Your task to perform on an android device: turn on bluetooth scan Image 0: 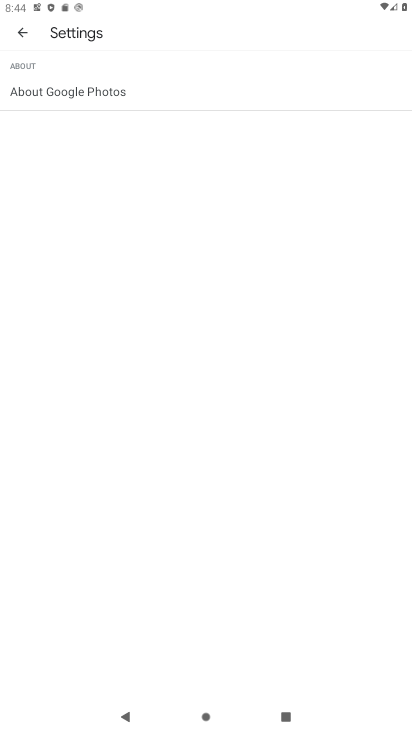
Step 0: press home button
Your task to perform on an android device: turn on bluetooth scan Image 1: 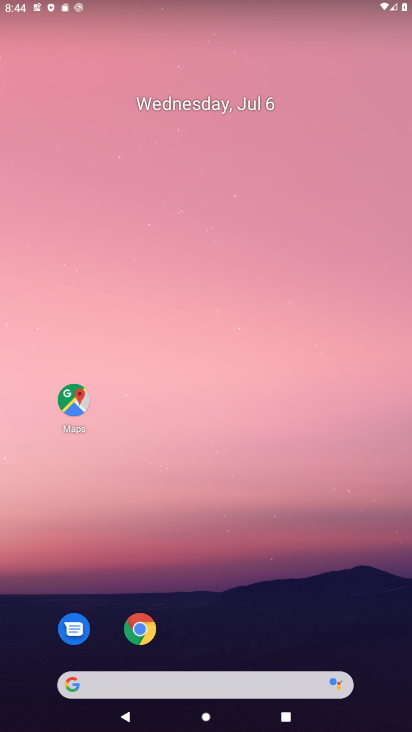
Step 1: drag from (225, 614) to (180, 133)
Your task to perform on an android device: turn on bluetooth scan Image 2: 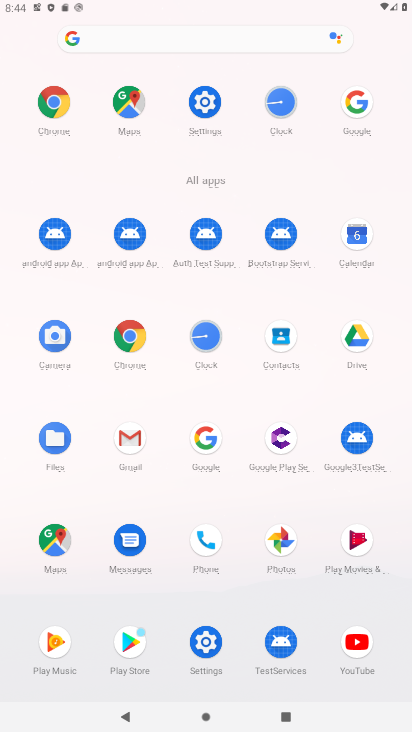
Step 2: click (204, 103)
Your task to perform on an android device: turn on bluetooth scan Image 3: 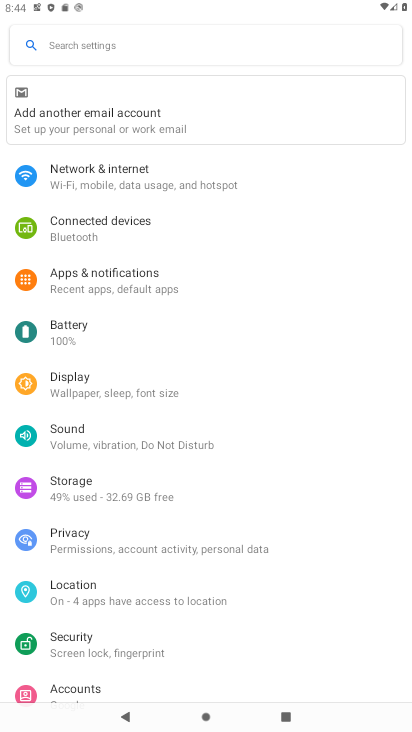
Step 3: click (89, 590)
Your task to perform on an android device: turn on bluetooth scan Image 4: 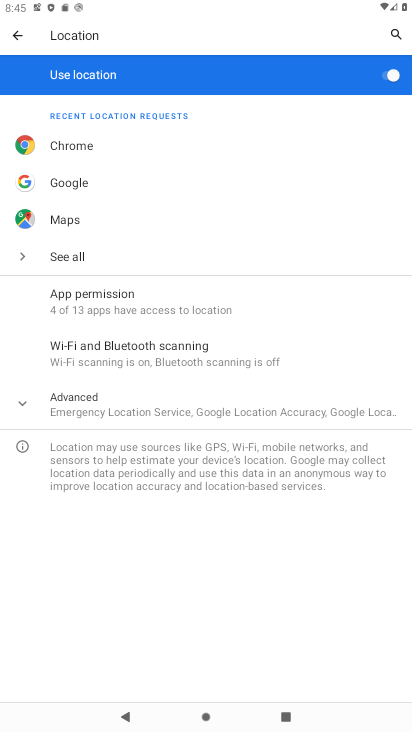
Step 4: click (103, 353)
Your task to perform on an android device: turn on bluetooth scan Image 5: 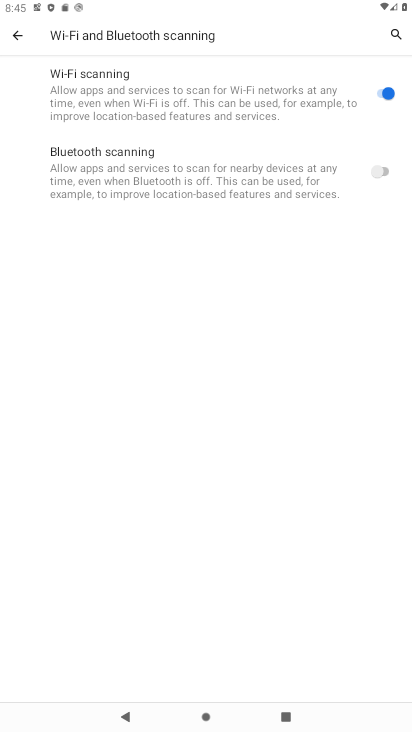
Step 5: click (382, 169)
Your task to perform on an android device: turn on bluetooth scan Image 6: 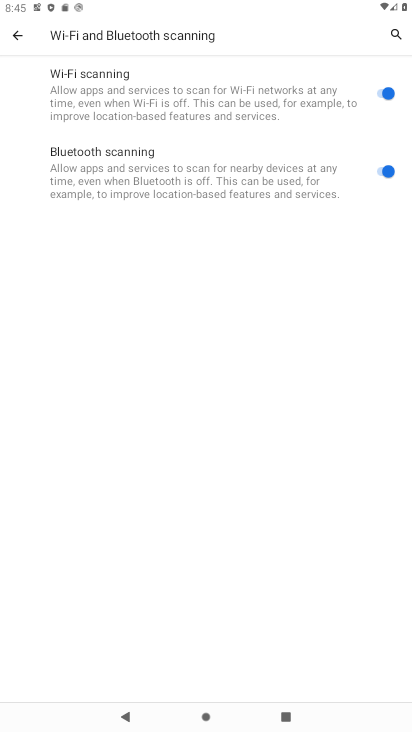
Step 6: task complete